Your task to perform on an android device: turn off data saver in the chrome app Image 0: 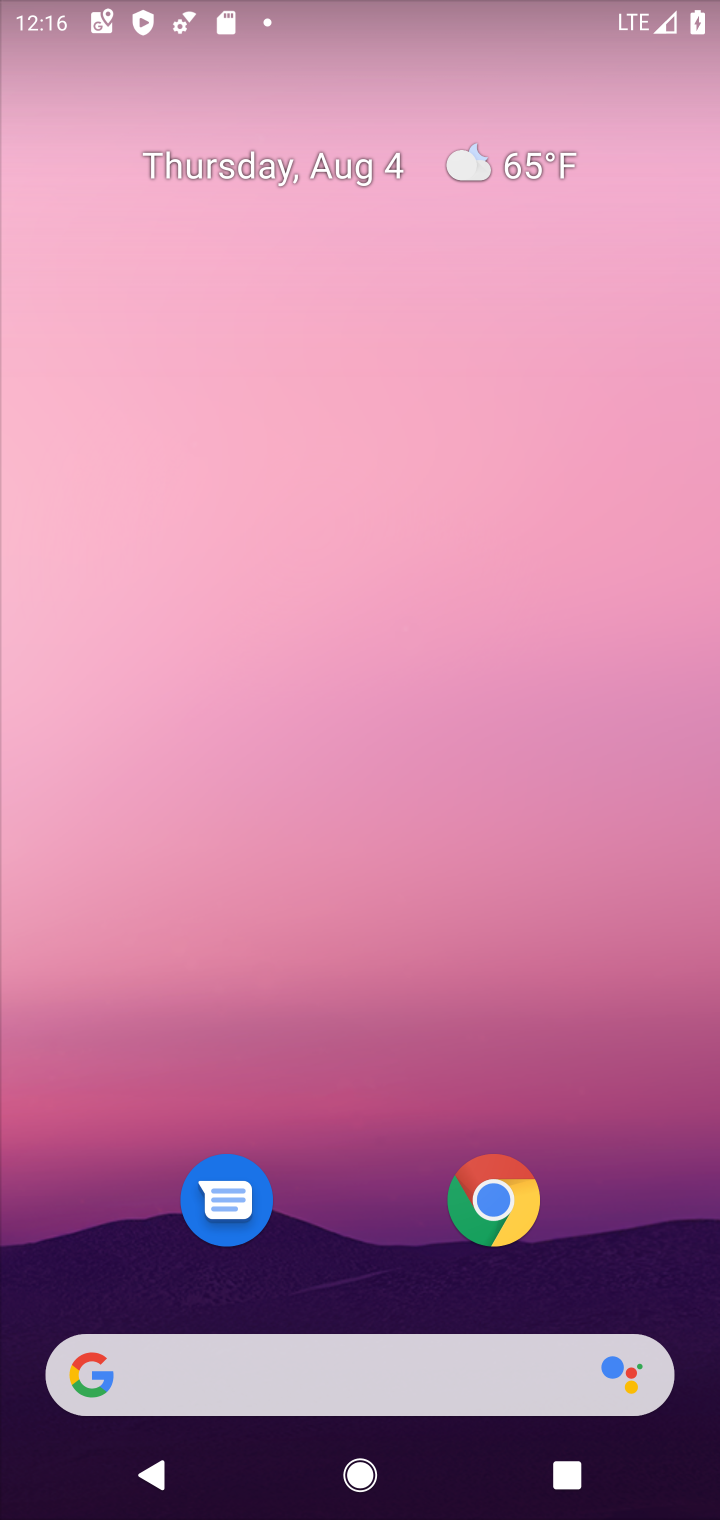
Step 0: press home button
Your task to perform on an android device: turn off data saver in the chrome app Image 1: 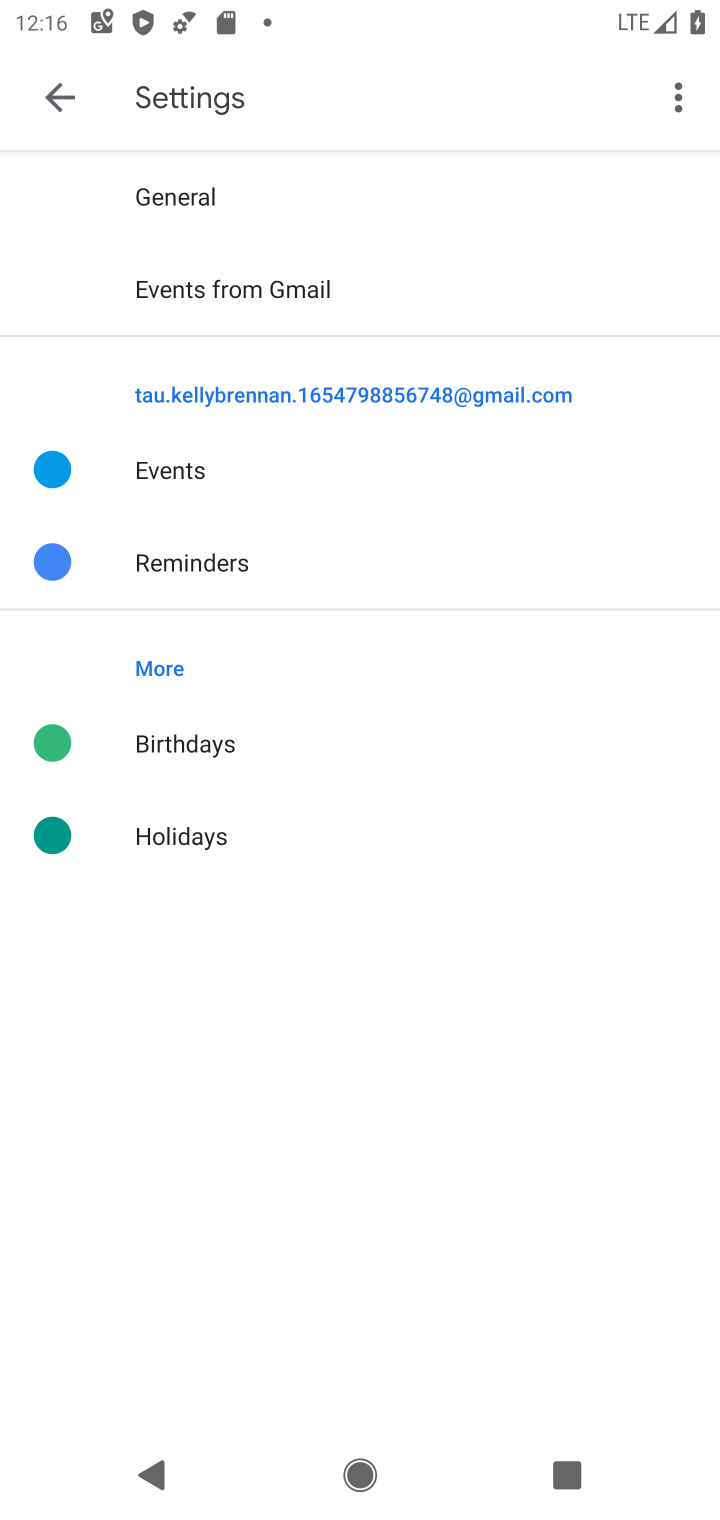
Step 1: drag from (554, 1284) to (517, 45)
Your task to perform on an android device: turn off data saver in the chrome app Image 2: 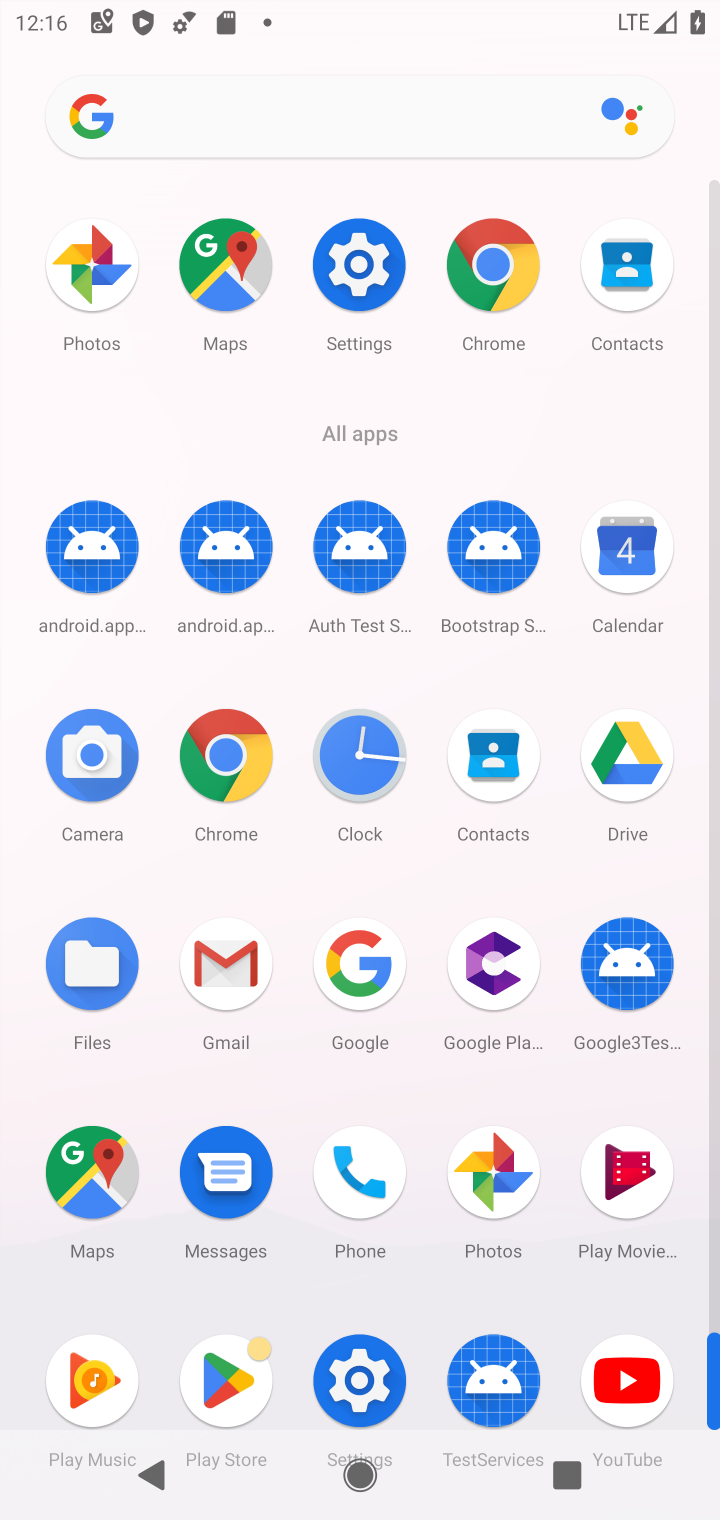
Step 2: press home button
Your task to perform on an android device: turn off data saver in the chrome app Image 3: 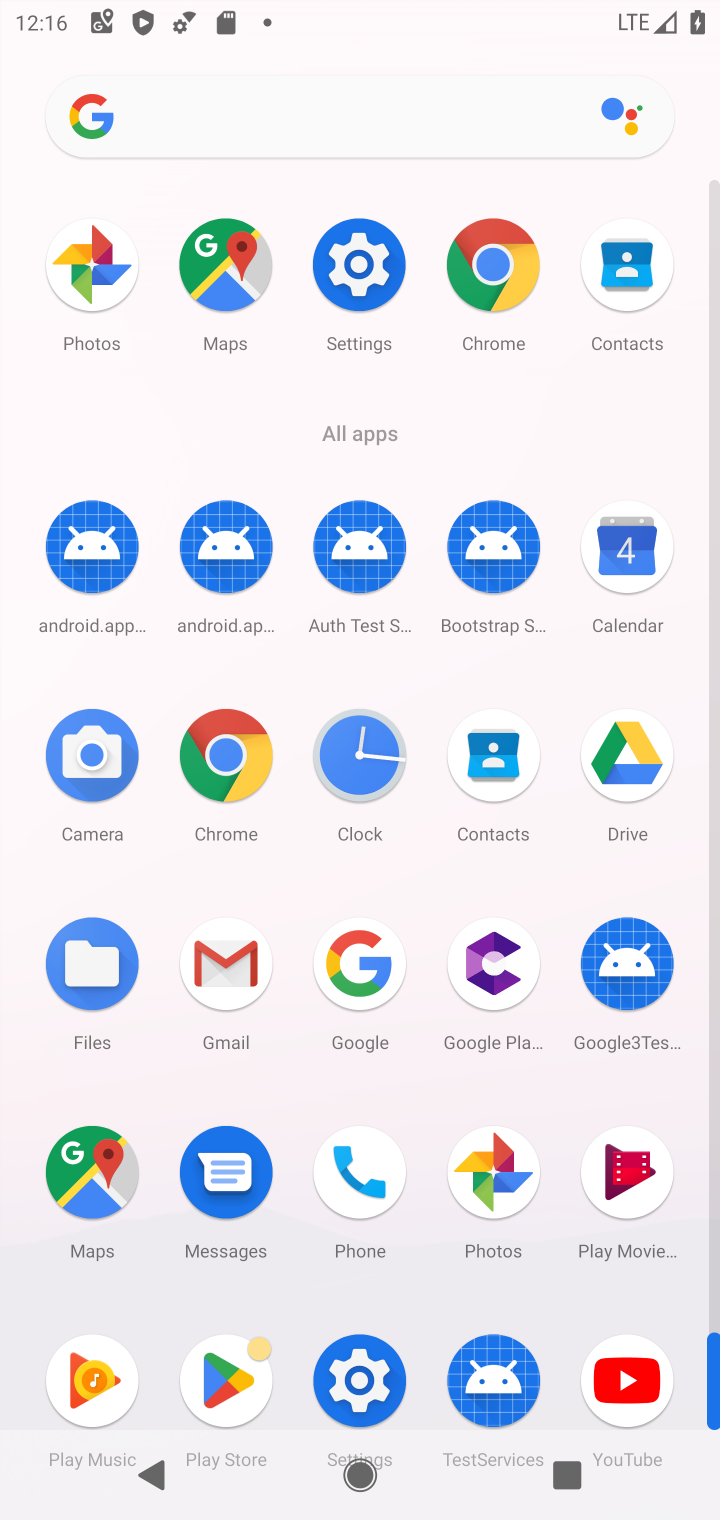
Step 3: press home button
Your task to perform on an android device: turn off data saver in the chrome app Image 4: 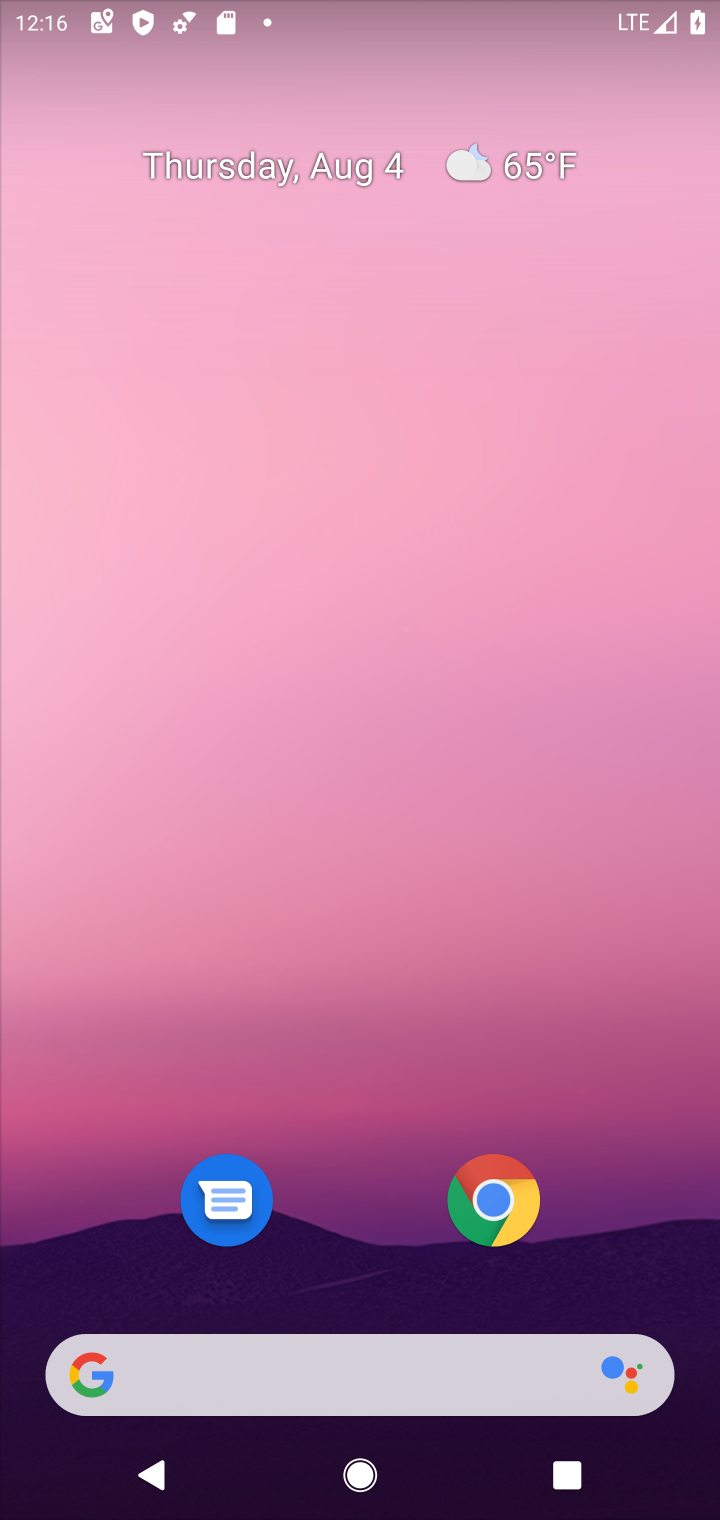
Step 4: drag from (566, 1254) to (505, 288)
Your task to perform on an android device: turn off data saver in the chrome app Image 5: 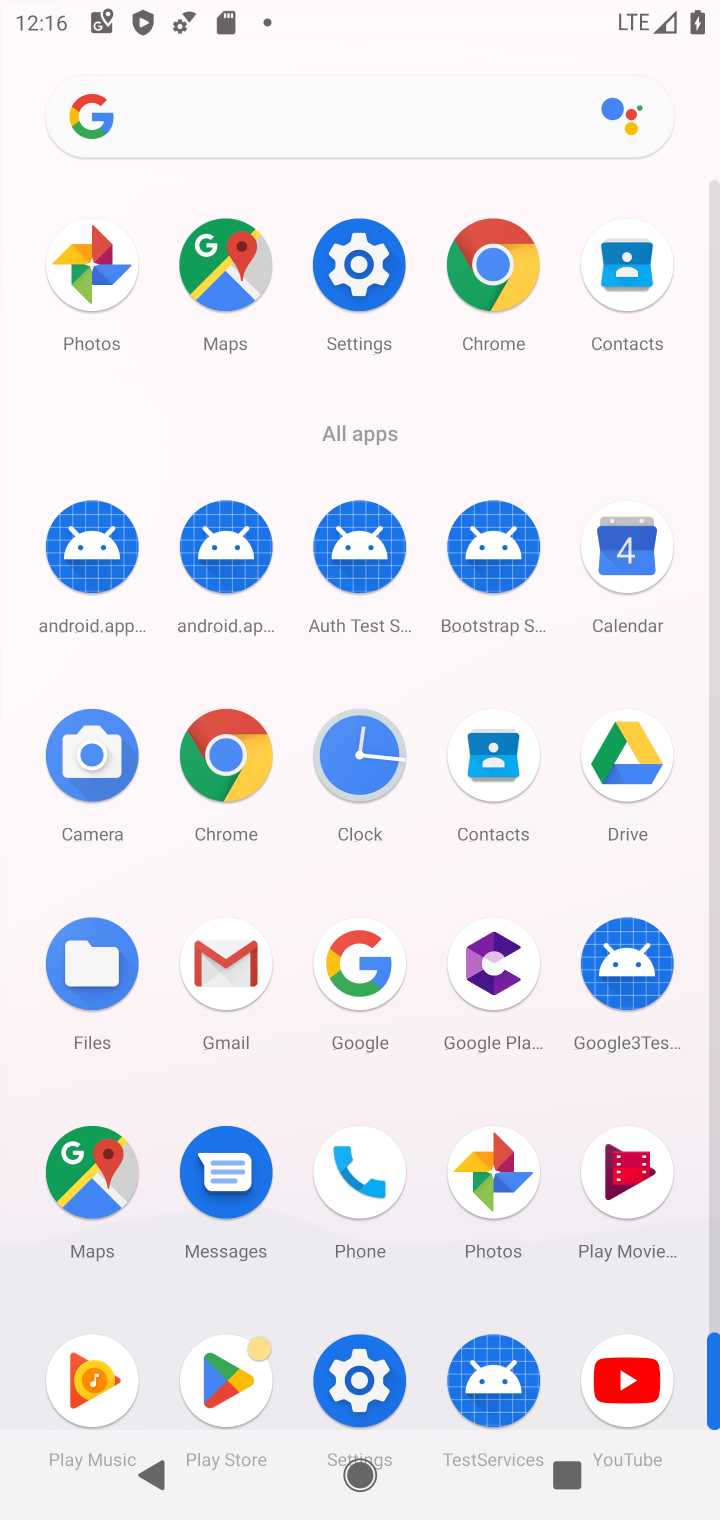
Step 5: click (615, 1420)
Your task to perform on an android device: turn off data saver in the chrome app Image 6: 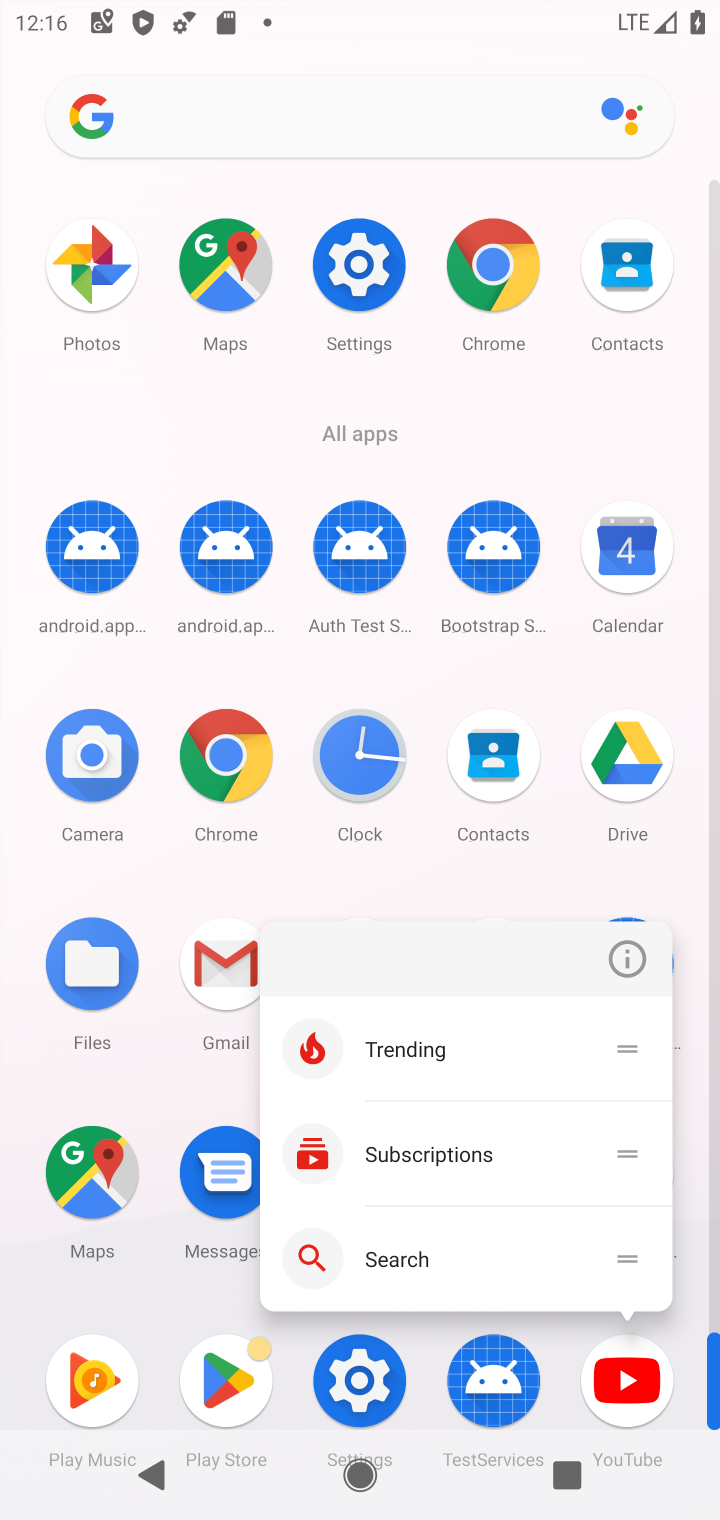
Step 6: click (615, 1403)
Your task to perform on an android device: turn off data saver in the chrome app Image 7: 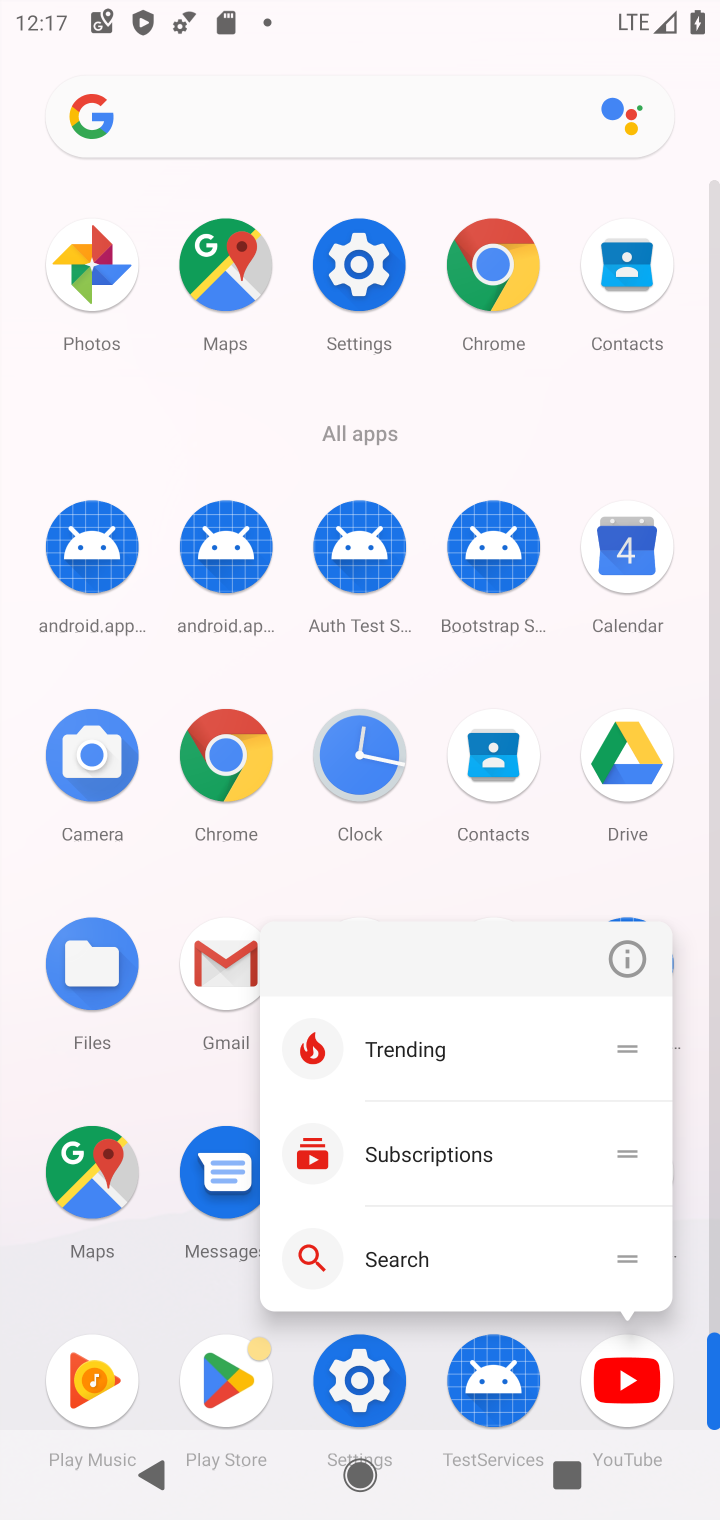
Step 7: click (222, 714)
Your task to perform on an android device: turn off data saver in the chrome app Image 8: 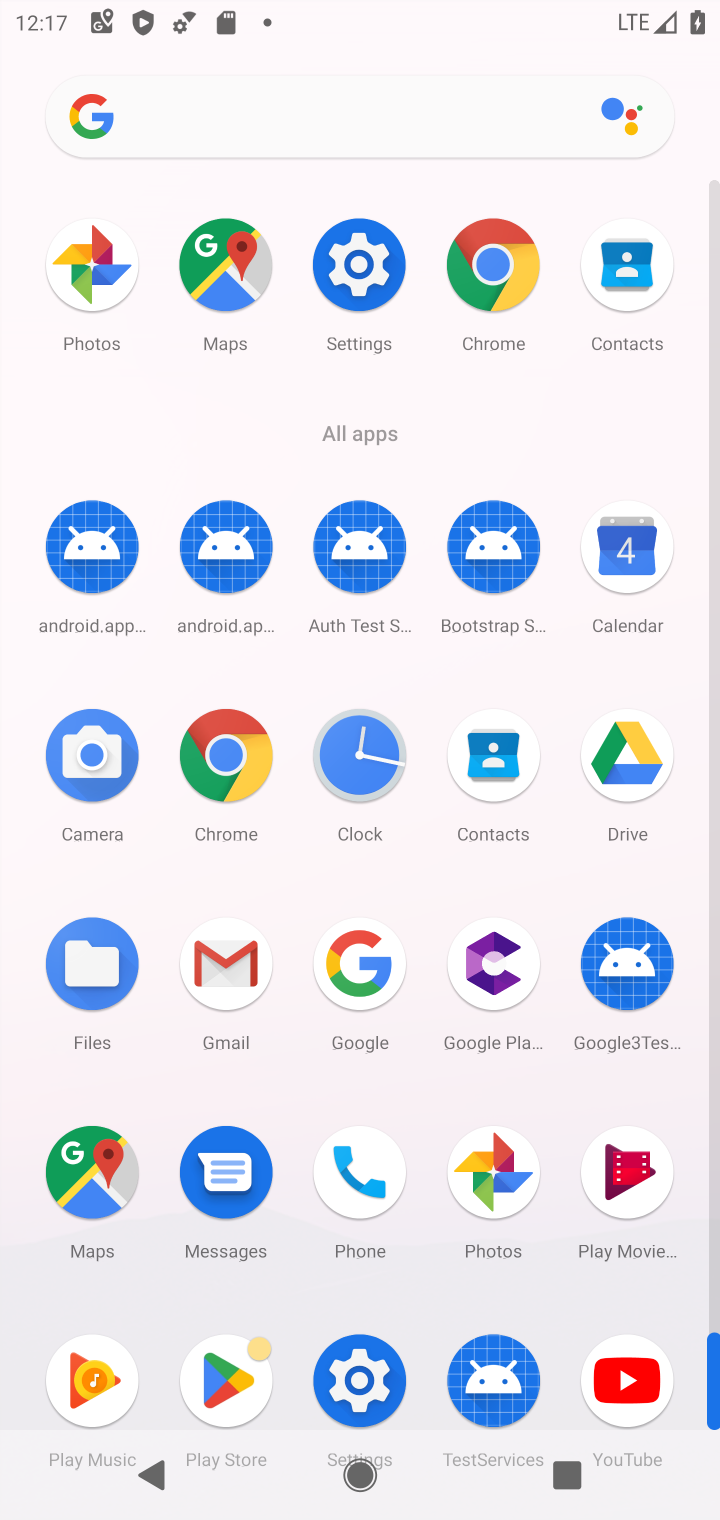
Step 8: click (215, 769)
Your task to perform on an android device: turn off data saver in the chrome app Image 9: 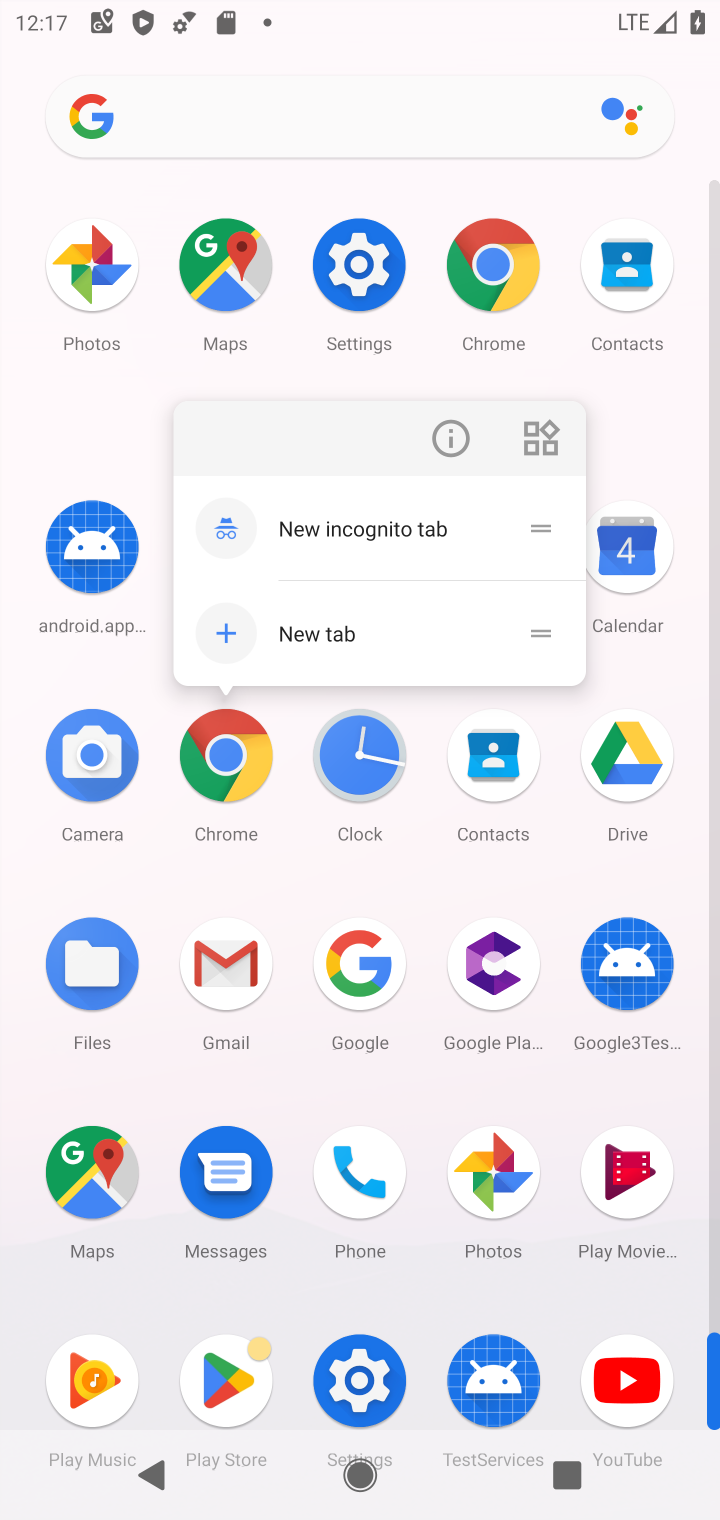
Step 9: click (240, 746)
Your task to perform on an android device: turn off data saver in the chrome app Image 10: 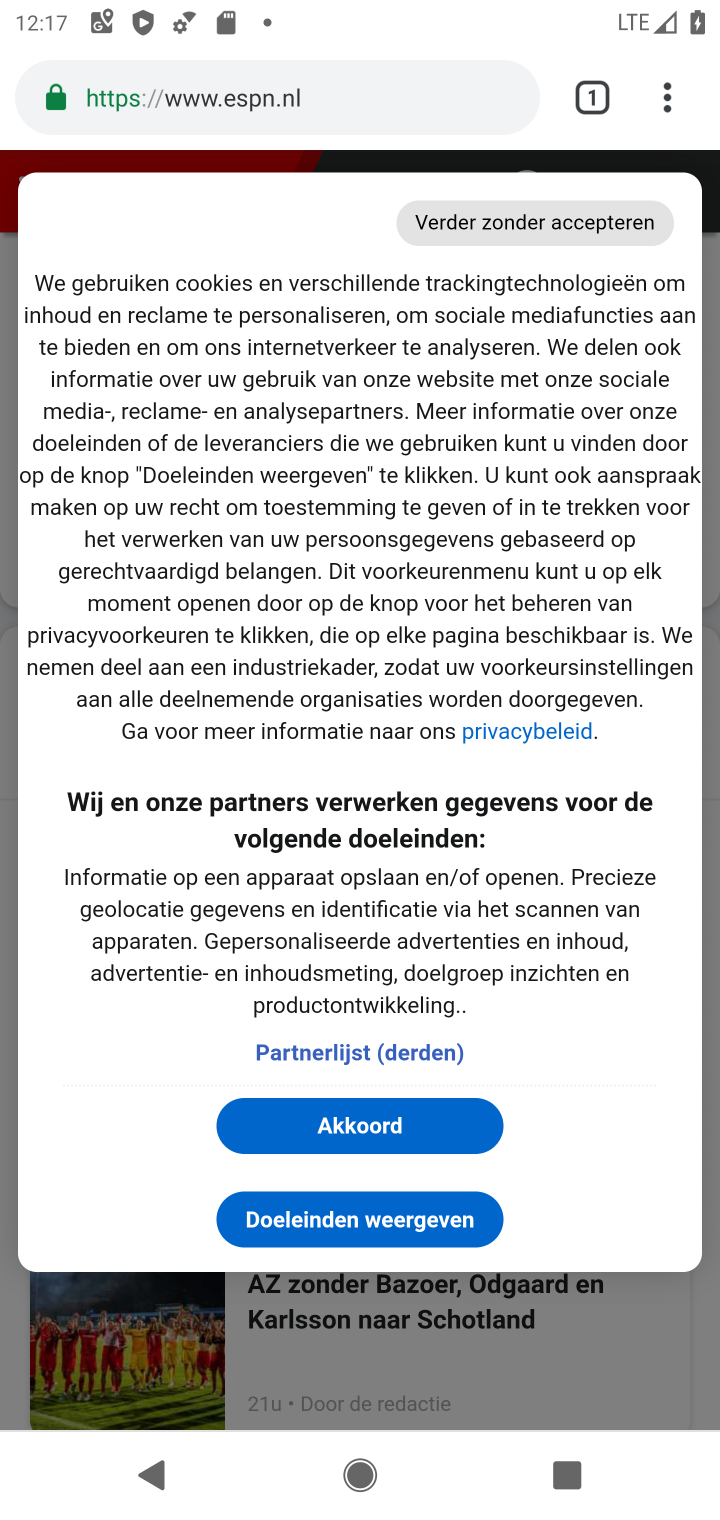
Step 10: drag from (670, 92) to (296, 1272)
Your task to perform on an android device: turn off data saver in the chrome app Image 11: 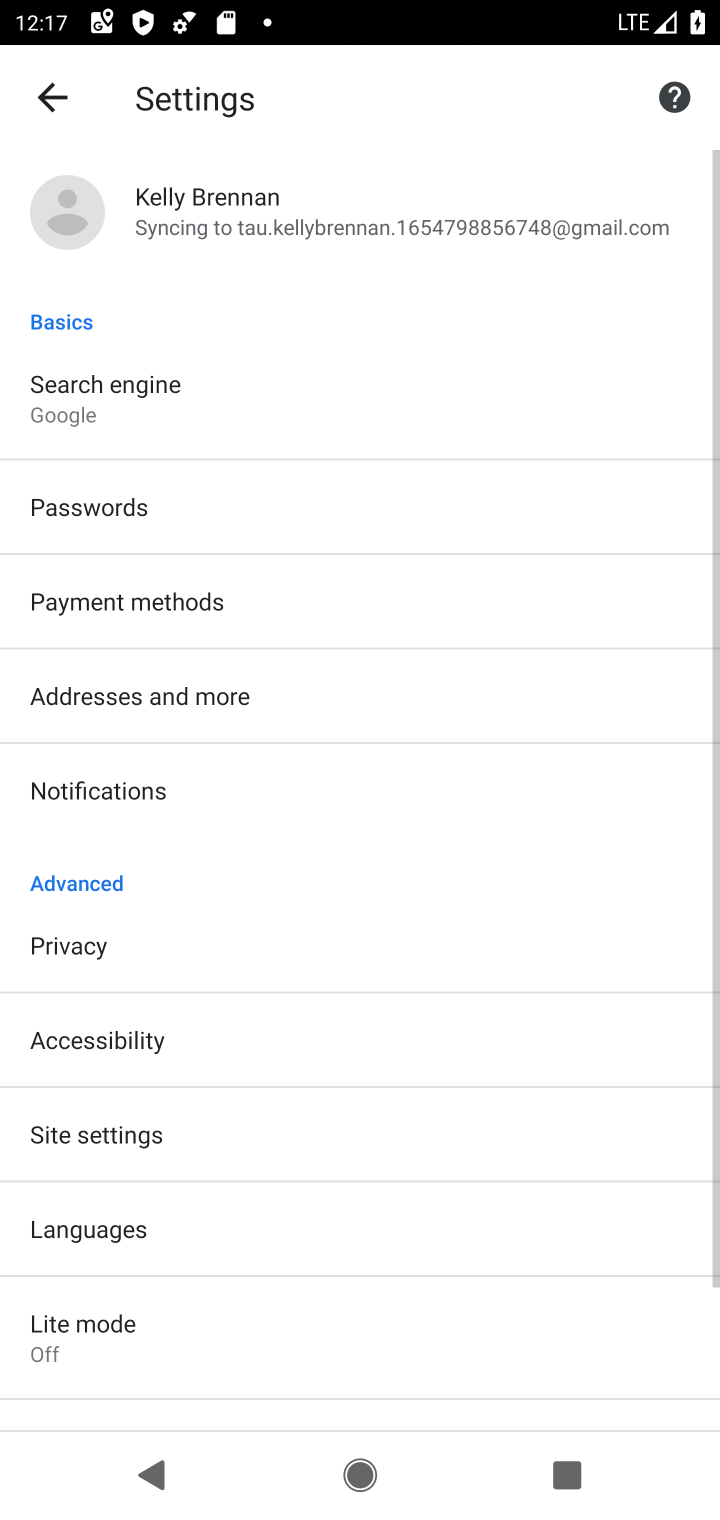
Step 11: drag from (333, 1252) to (462, 502)
Your task to perform on an android device: turn off data saver in the chrome app Image 12: 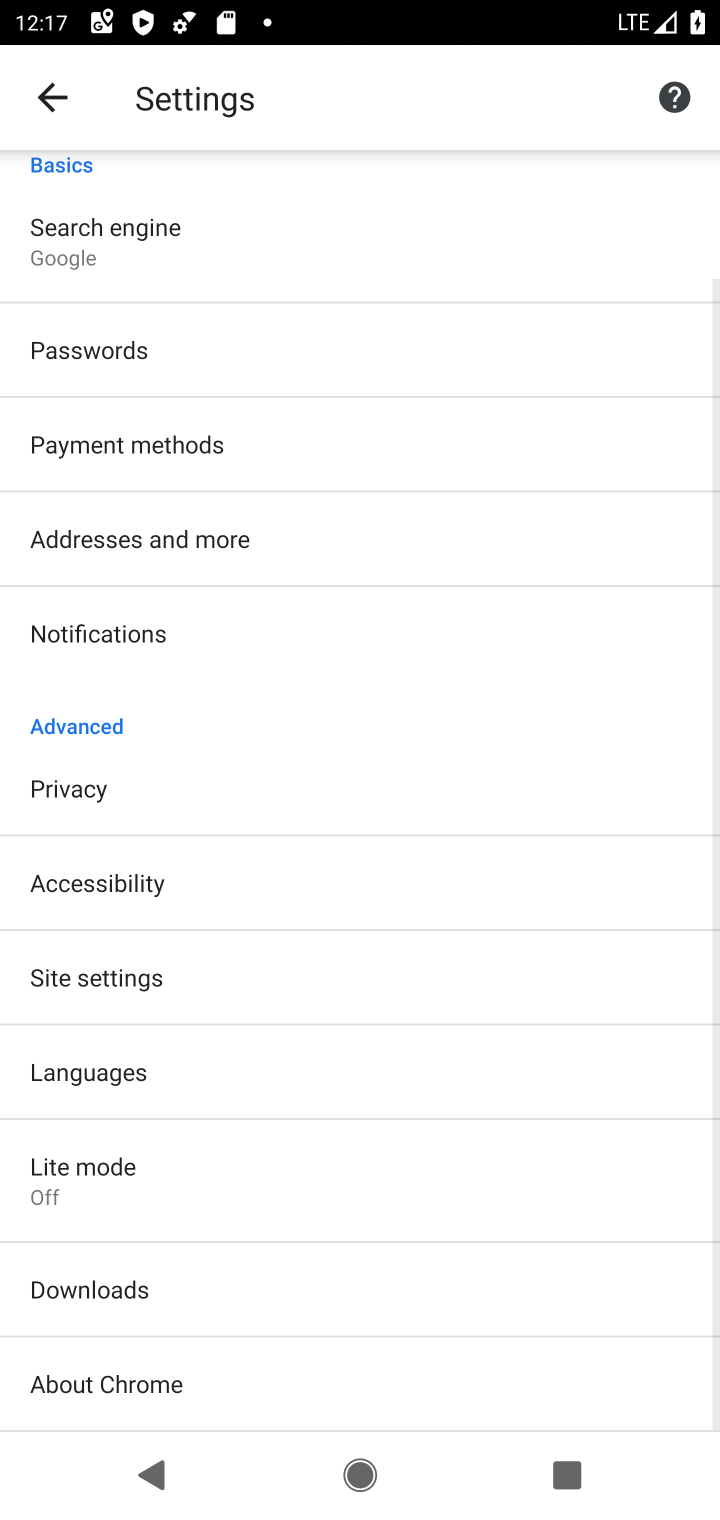
Step 12: click (123, 1176)
Your task to perform on an android device: turn off data saver in the chrome app Image 13: 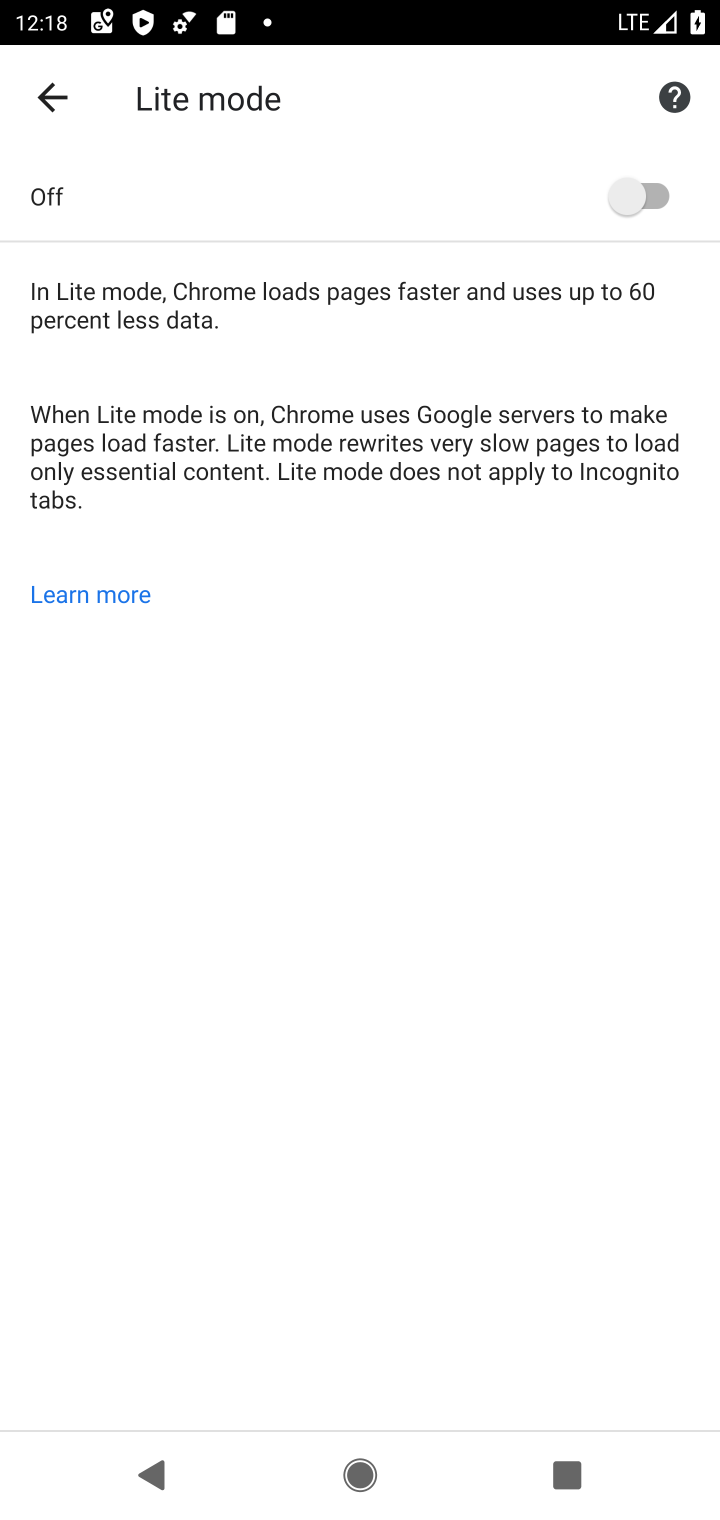
Step 13: task complete